Your task to perform on an android device: show emergency info Image 0: 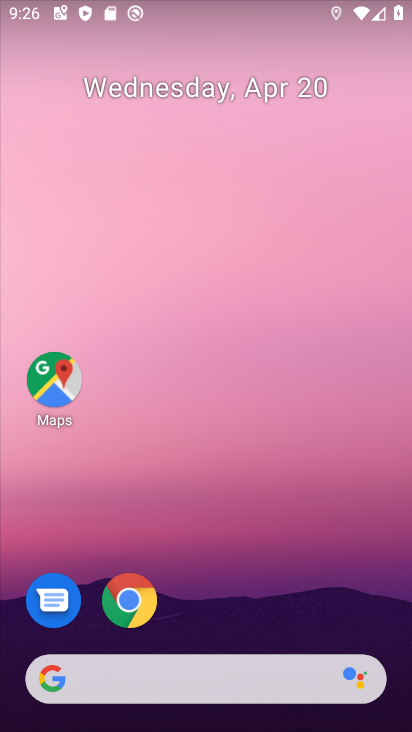
Step 0: drag from (188, 641) to (148, 0)
Your task to perform on an android device: show emergency info Image 1: 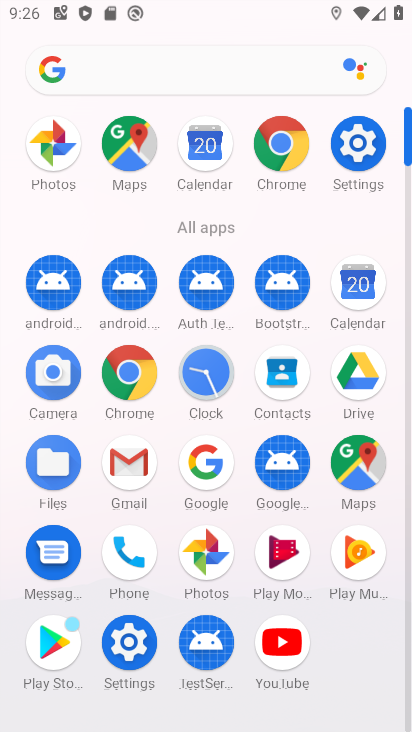
Step 1: click (150, 634)
Your task to perform on an android device: show emergency info Image 2: 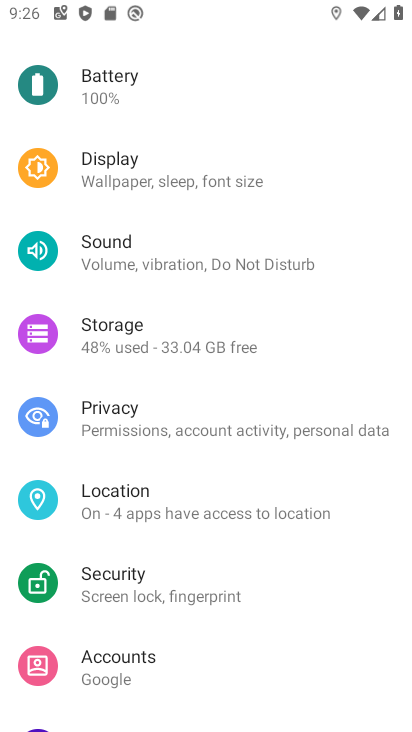
Step 2: drag from (186, 620) to (143, 85)
Your task to perform on an android device: show emergency info Image 3: 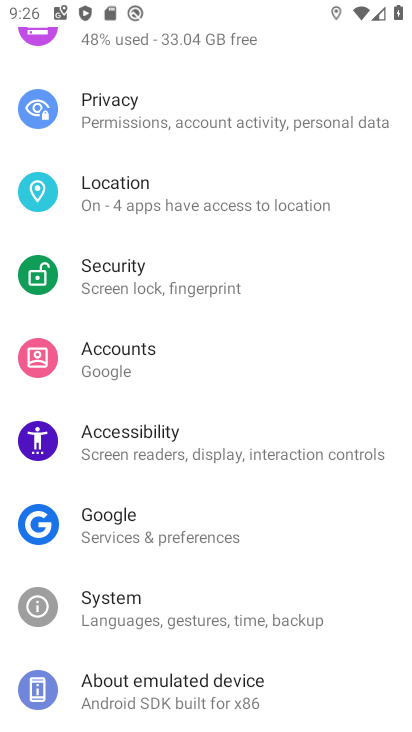
Step 3: click (157, 687)
Your task to perform on an android device: show emergency info Image 4: 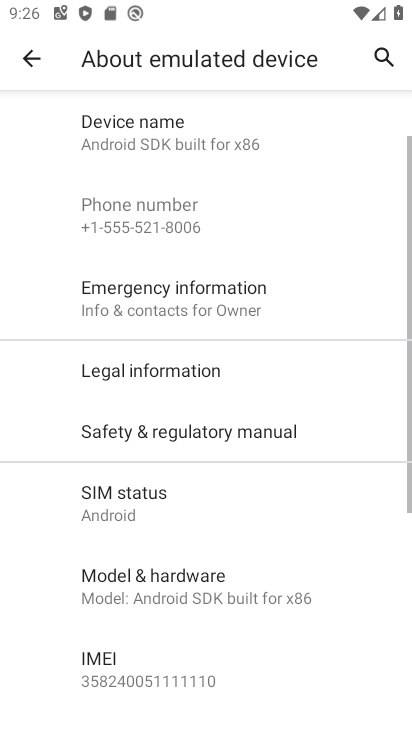
Step 4: click (252, 318)
Your task to perform on an android device: show emergency info Image 5: 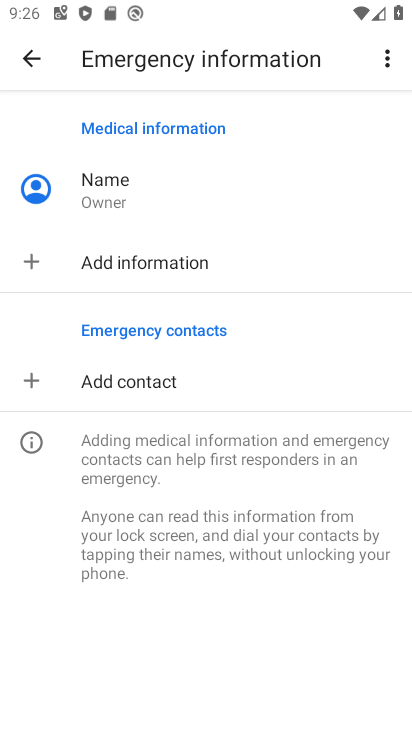
Step 5: task complete